Your task to perform on an android device: Open the phone app and click the voicemail tab. Image 0: 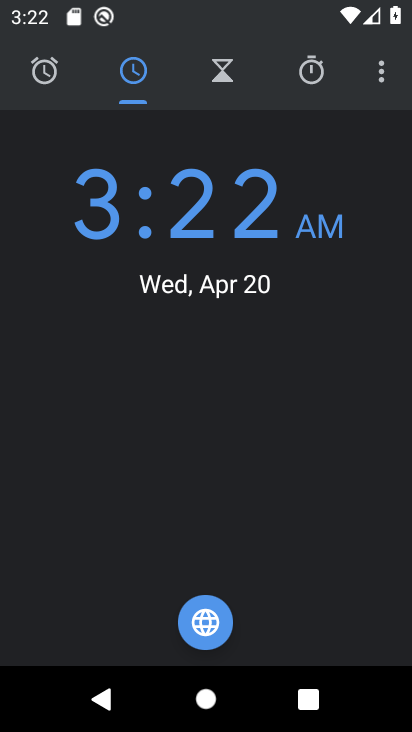
Step 0: press home button
Your task to perform on an android device: Open the phone app and click the voicemail tab. Image 1: 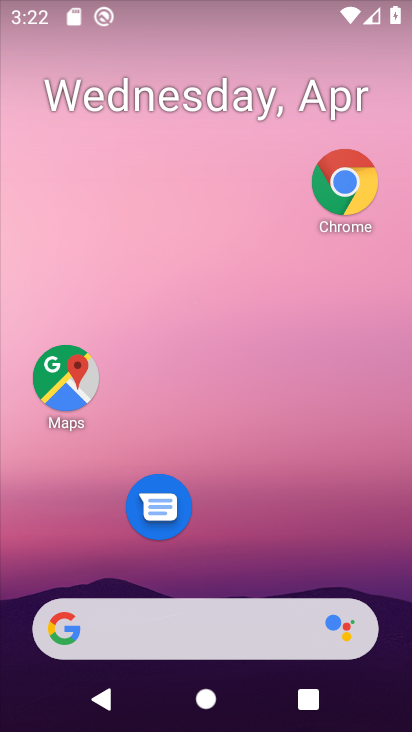
Step 1: drag from (185, 551) to (239, 5)
Your task to perform on an android device: Open the phone app and click the voicemail tab. Image 2: 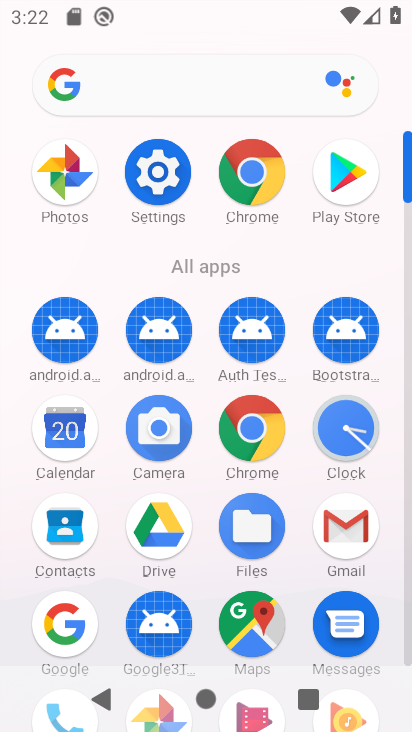
Step 2: drag from (89, 567) to (122, 211)
Your task to perform on an android device: Open the phone app and click the voicemail tab. Image 3: 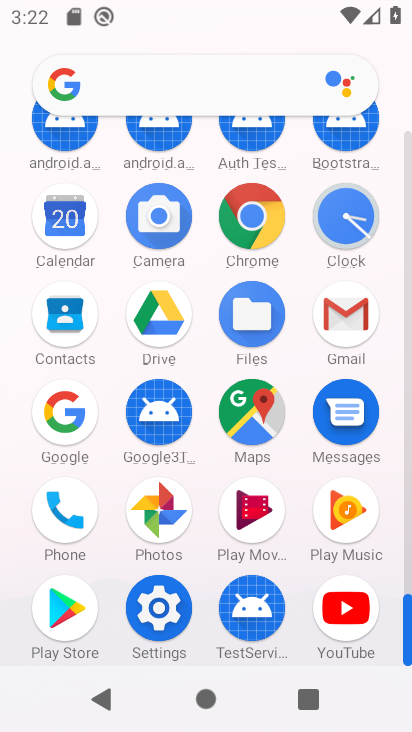
Step 3: click (77, 525)
Your task to perform on an android device: Open the phone app and click the voicemail tab. Image 4: 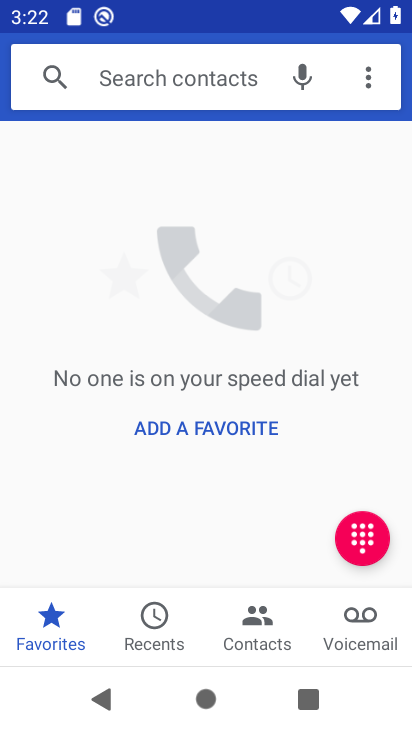
Step 4: click (359, 616)
Your task to perform on an android device: Open the phone app and click the voicemail tab. Image 5: 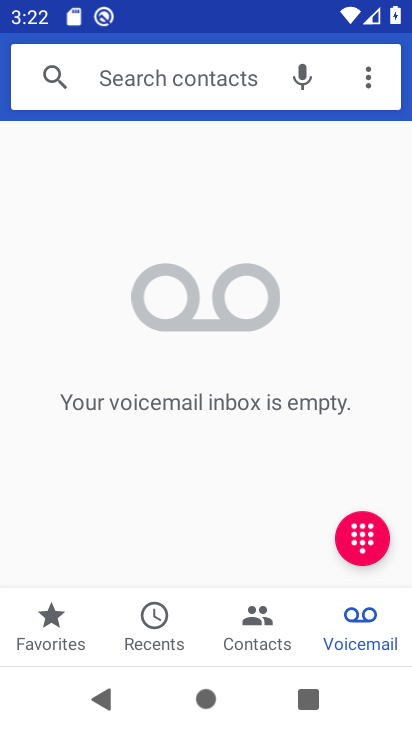
Step 5: task complete